Your task to perform on an android device: Open the stopwatch Image 0: 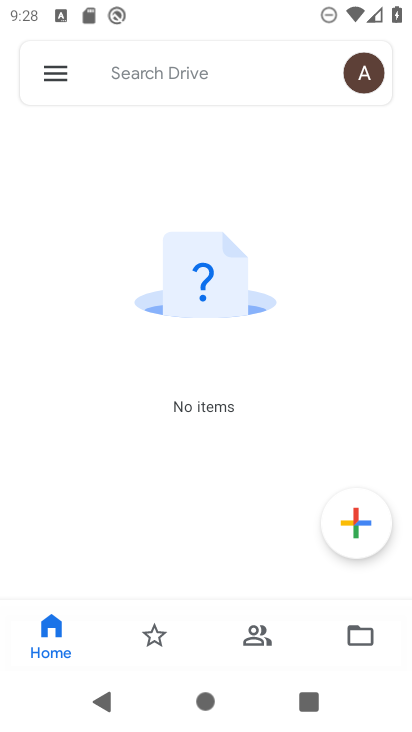
Step 0: press home button
Your task to perform on an android device: Open the stopwatch Image 1: 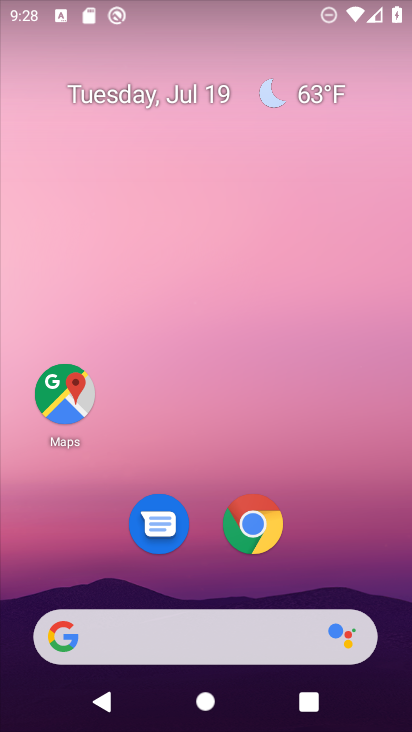
Step 1: drag from (319, 541) to (356, 41)
Your task to perform on an android device: Open the stopwatch Image 2: 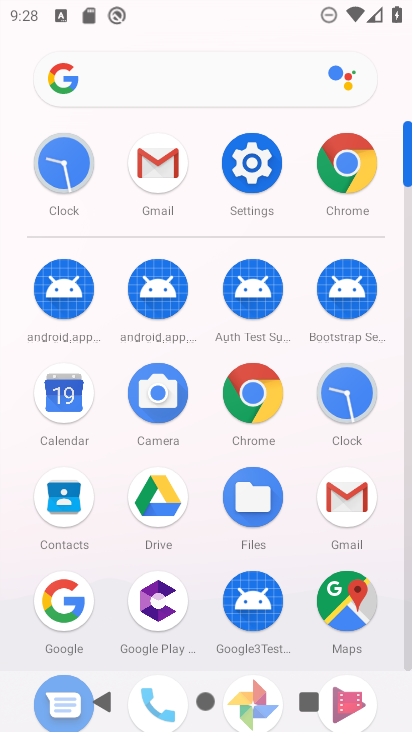
Step 2: click (73, 164)
Your task to perform on an android device: Open the stopwatch Image 3: 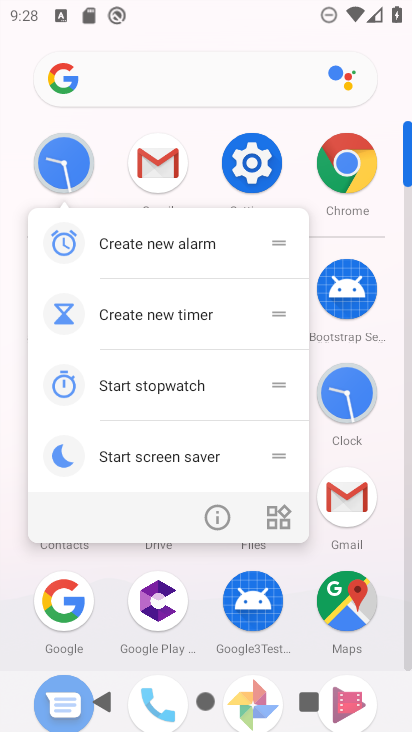
Step 3: click (73, 163)
Your task to perform on an android device: Open the stopwatch Image 4: 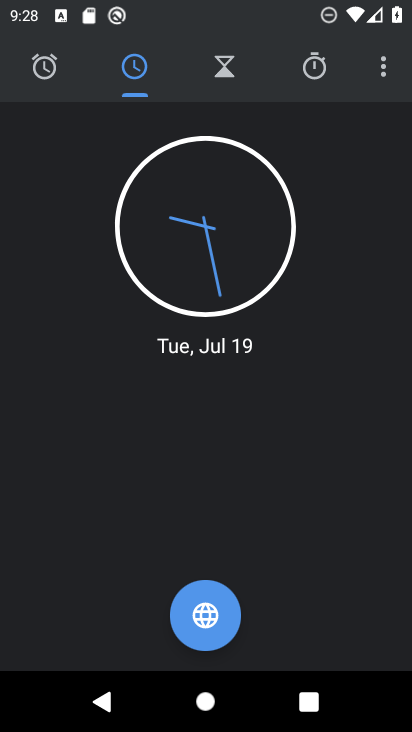
Step 4: click (308, 62)
Your task to perform on an android device: Open the stopwatch Image 5: 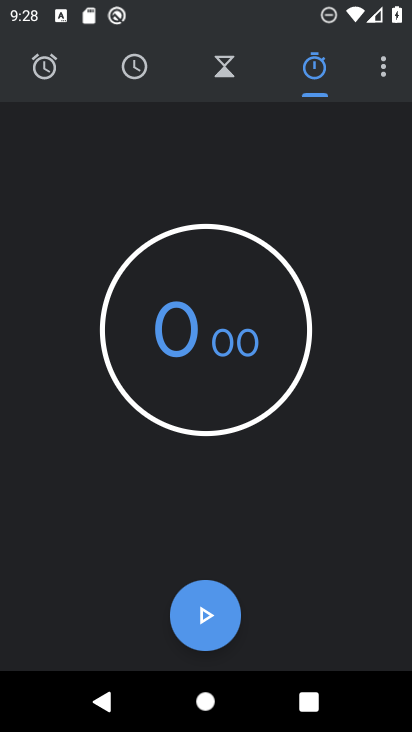
Step 5: task complete